Your task to perform on an android device: turn off sleep mode Image 0: 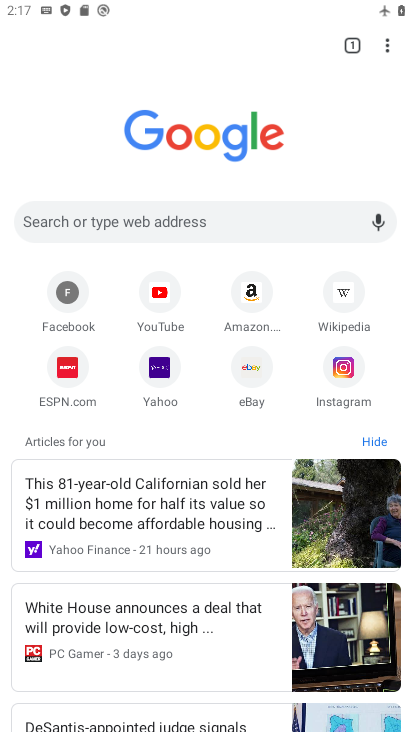
Step 0: press home button
Your task to perform on an android device: turn off sleep mode Image 1: 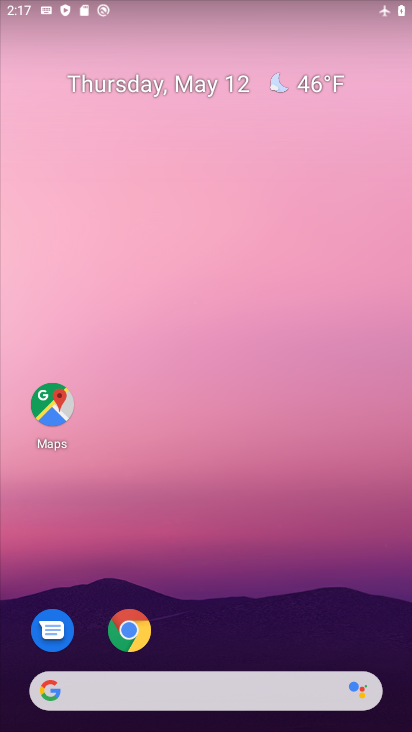
Step 1: drag from (289, 509) to (377, 175)
Your task to perform on an android device: turn off sleep mode Image 2: 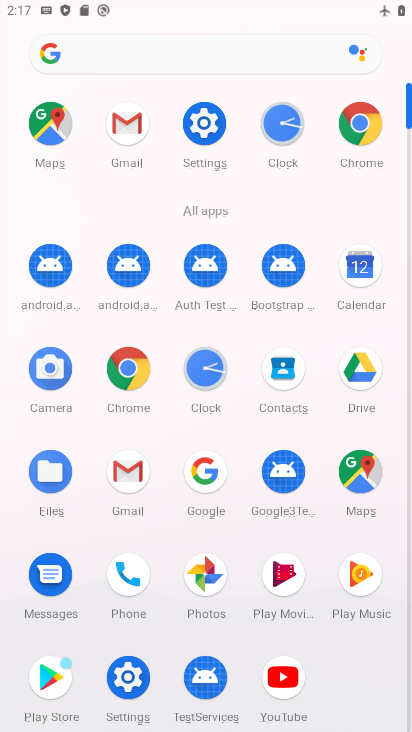
Step 2: click (134, 683)
Your task to perform on an android device: turn off sleep mode Image 3: 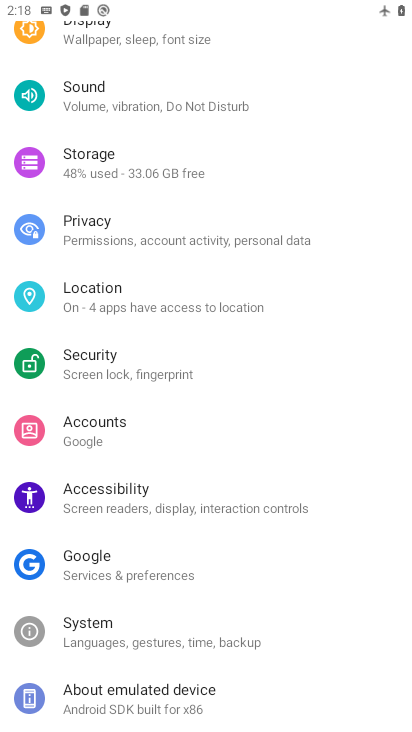
Step 3: task complete